Your task to perform on an android device: Do I have any events this weekend? Image 0: 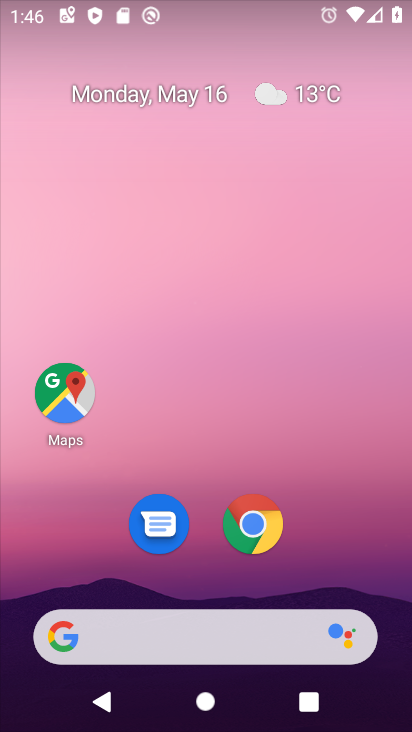
Step 0: drag from (328, 562) to (313, 38)
Your task to perform on an android device: Do I have any events this weekend? Image 1: 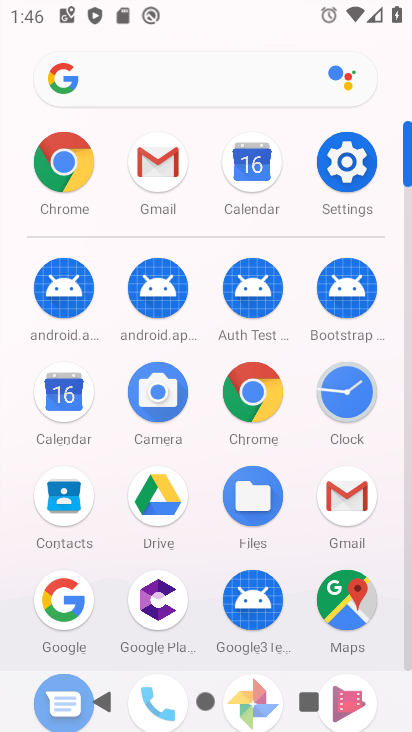
Step 1: click (256, 149)
Your task to perform on an android device: Do I have any events this weekend? Image 2: 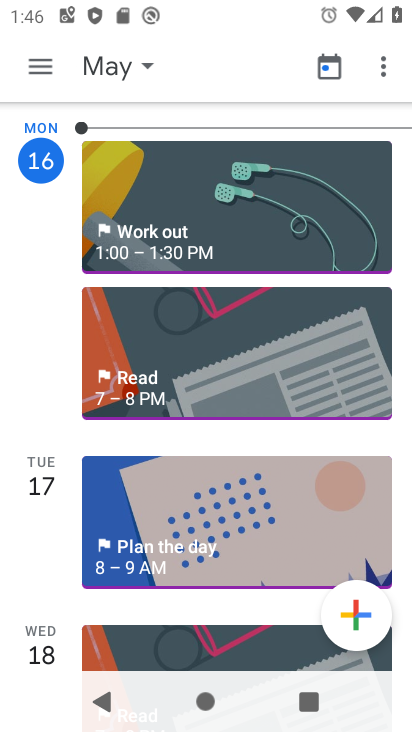
Step 2: task complete